Your task to perform on an android device: uninstall "Adobe Acrobat Reader: Edit PDF" Image 0: 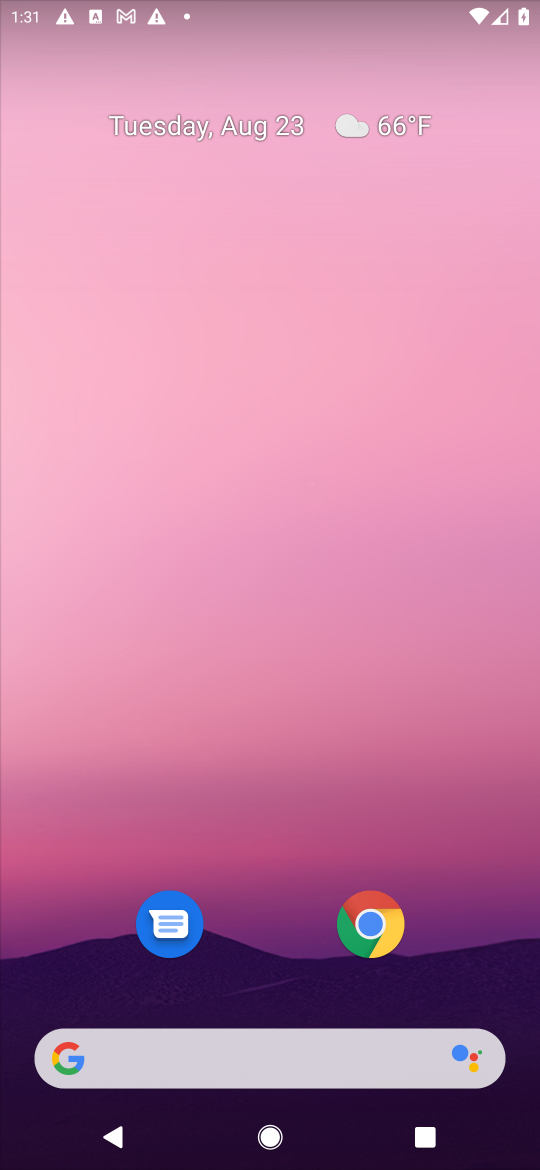
Step 0: press home button
Your task to perform on an android device: uninstall "Adobe Acrobat Reader: Edit PDF" Image 1: 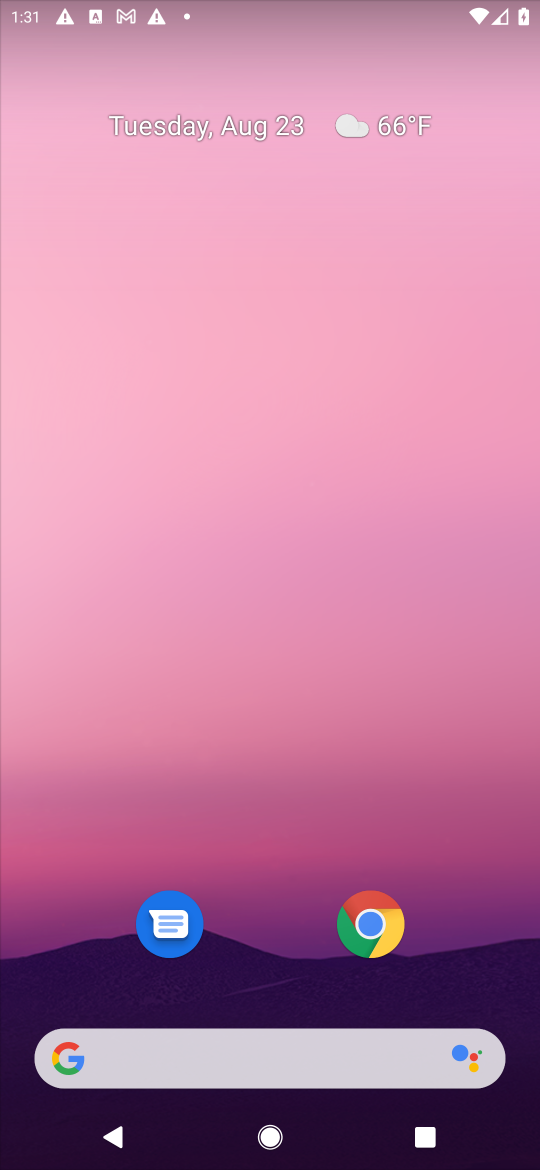
Step 1: drag from (469, 985) to (482, 184)
Your task to perform on an android device: uninstall "Adobe Acrobat Reader: Edit PDF" Image 2: 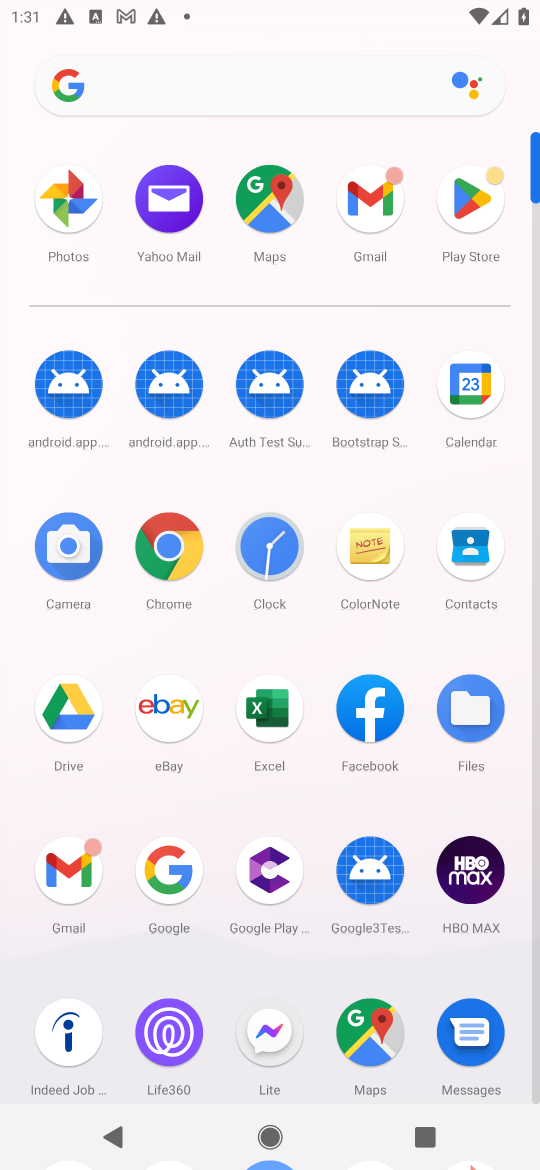
Step 2: click (474, 191)
Your task to perform on an android device: uninstall "Adobe Acrobat Reader: Edit PDF" Image 3: 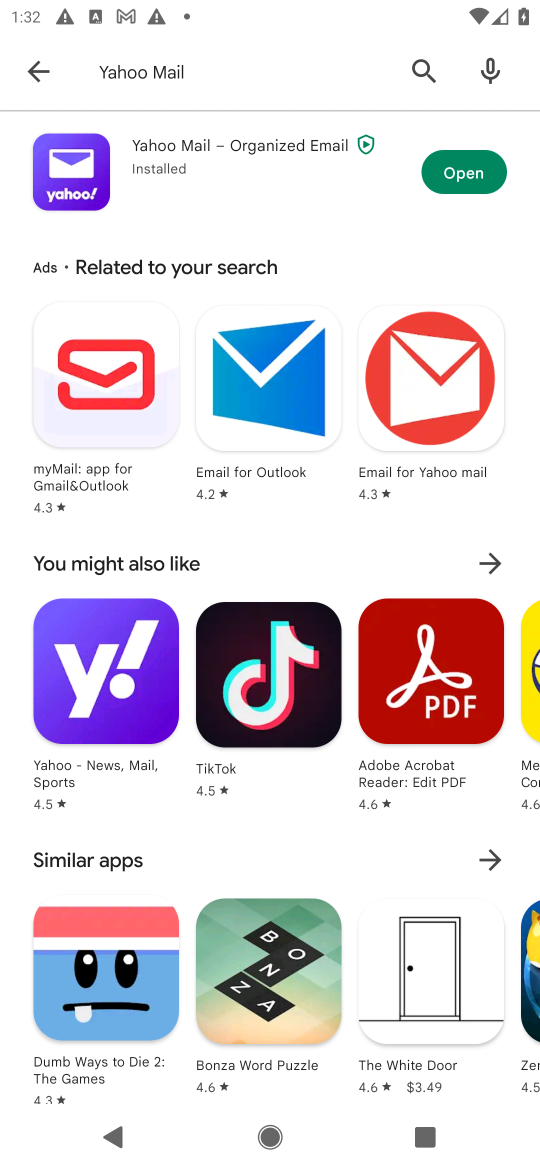
Step 3: press back button
Your task to perform on an android device: uninstall "Adobe Acrobat Reader: Edit PDF" Image 4: 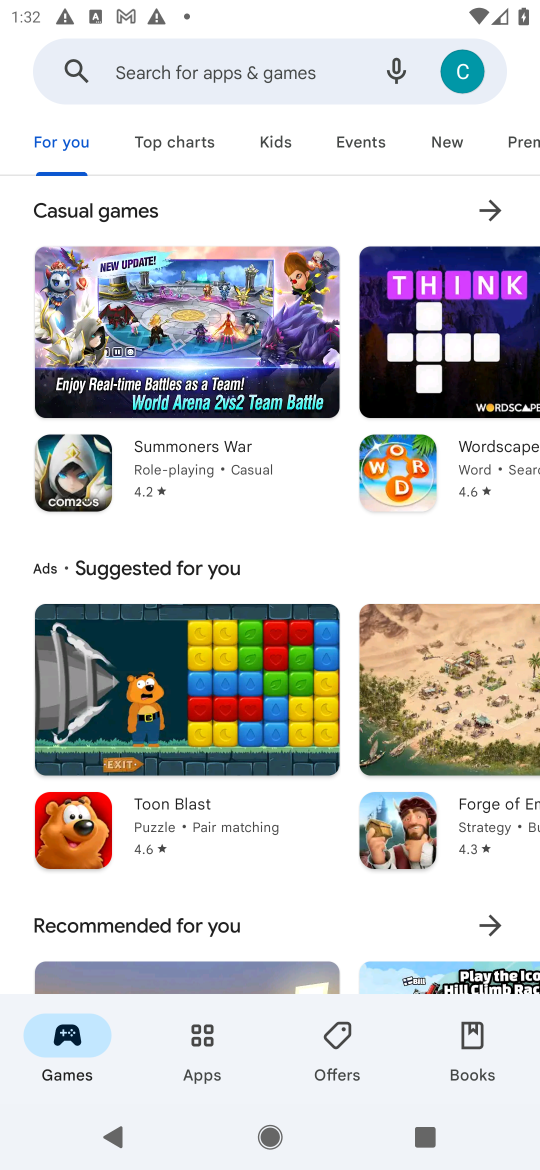
Step 4: click (228, 66)
Your task to perform on an android device: uninstall "Adobe Acrobat Reader: Edit PDF" Image 5: 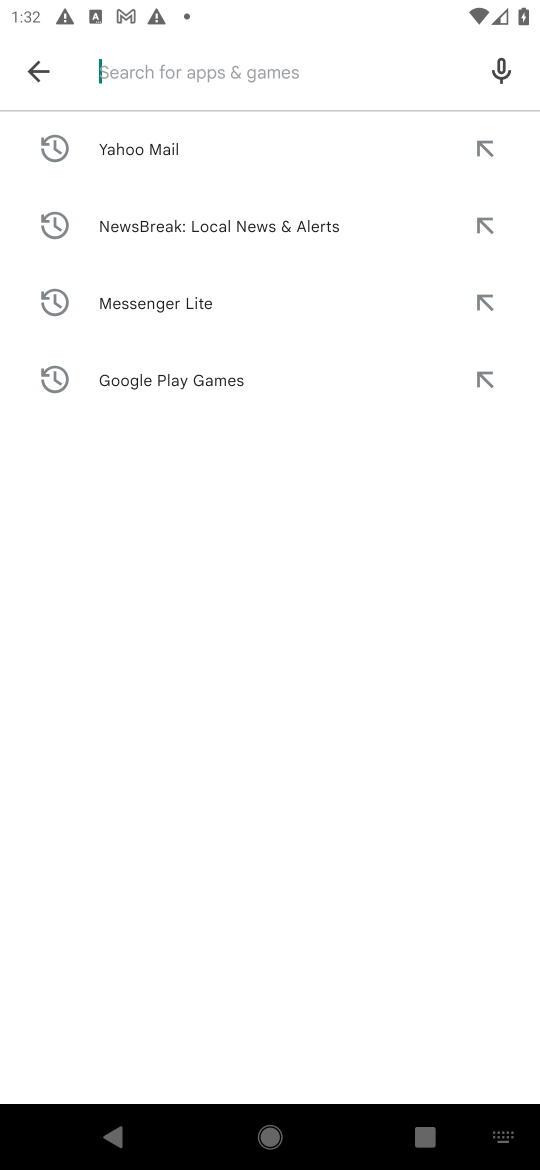
Step 5: press enter
Your task to perform on an android device: uninstall "Adobe Acrobat Reader: Edit PDF" Image 6: 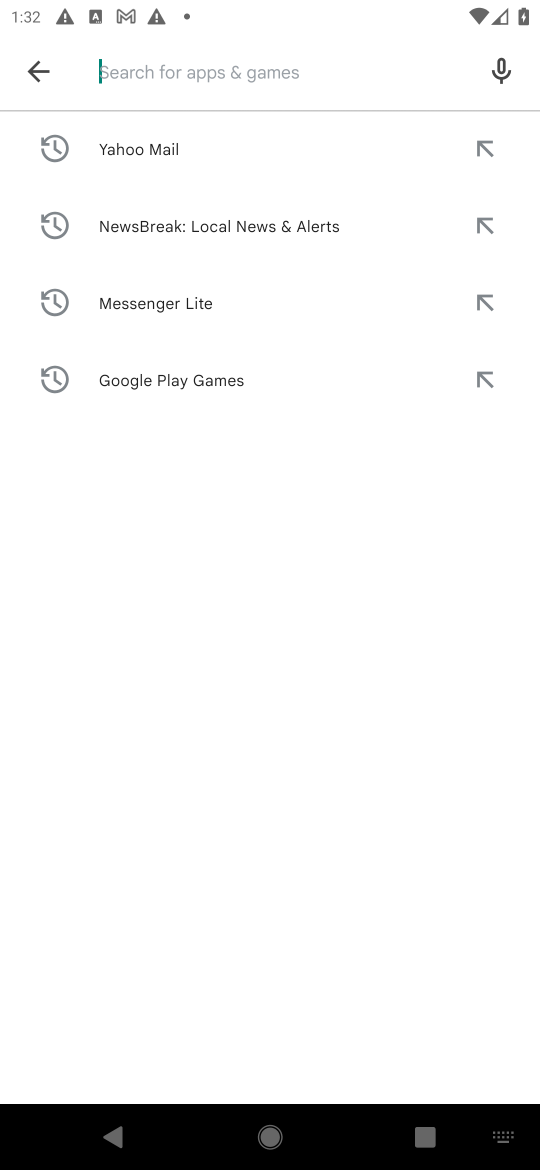
Step 6: type "Adobe Acrobat Reader: Edit PDF"
Your task to perform on an android device: uninstall "Adobe Acrobat Reader: Edit PDF" Image 7: 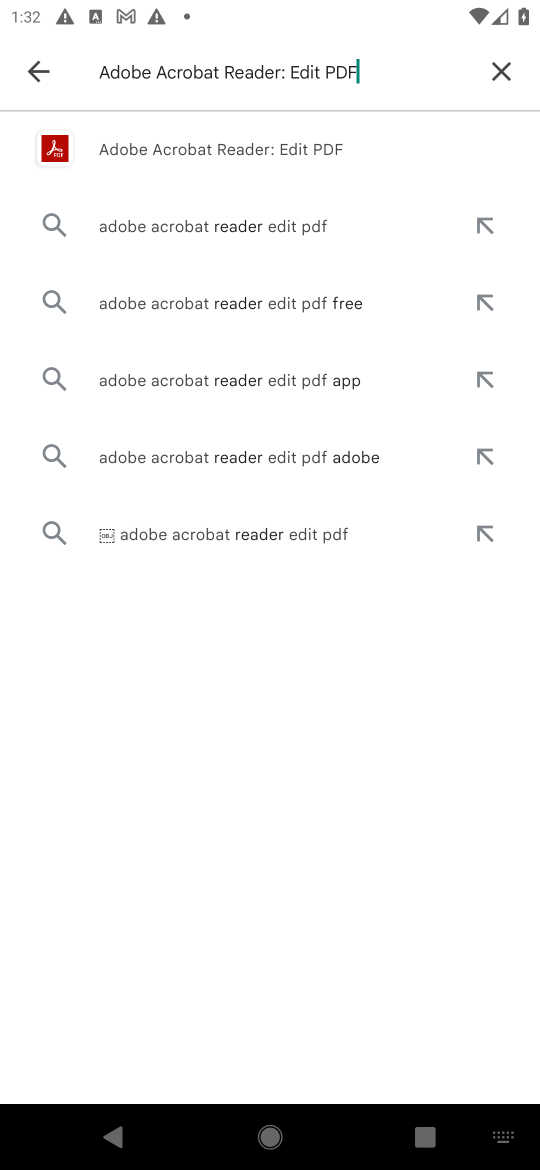
Step 7: click (290, 152)
Your task to perform on an android device: uninstall "Adobe Acrobat Reader: Edit PDF" Image 8: 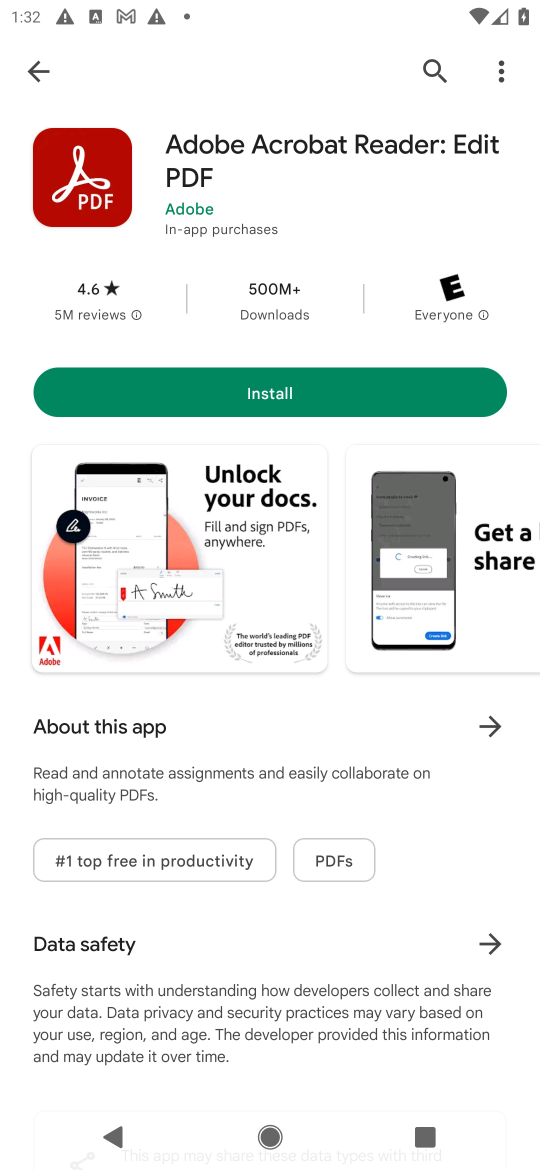
Step 8: click (306, 400)
Your task to perform on an android device: uninstall "Adobe Acrobat Reader: Edit PDF" Image 9: 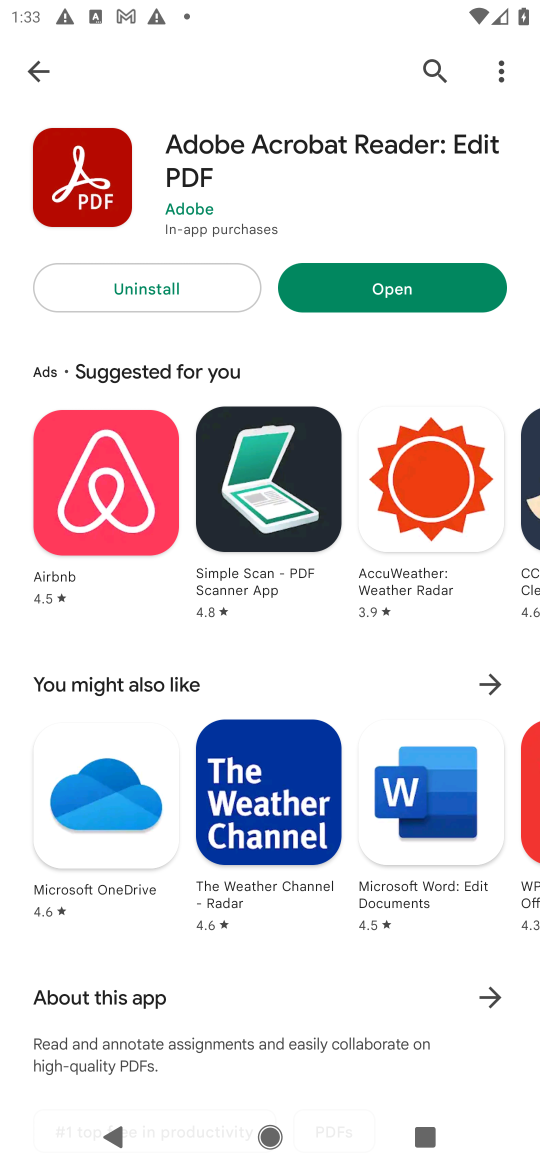
Step 9: task complete